Your task to perform on an android device: Open Youtube and go to the subscriptions tab Image 0: 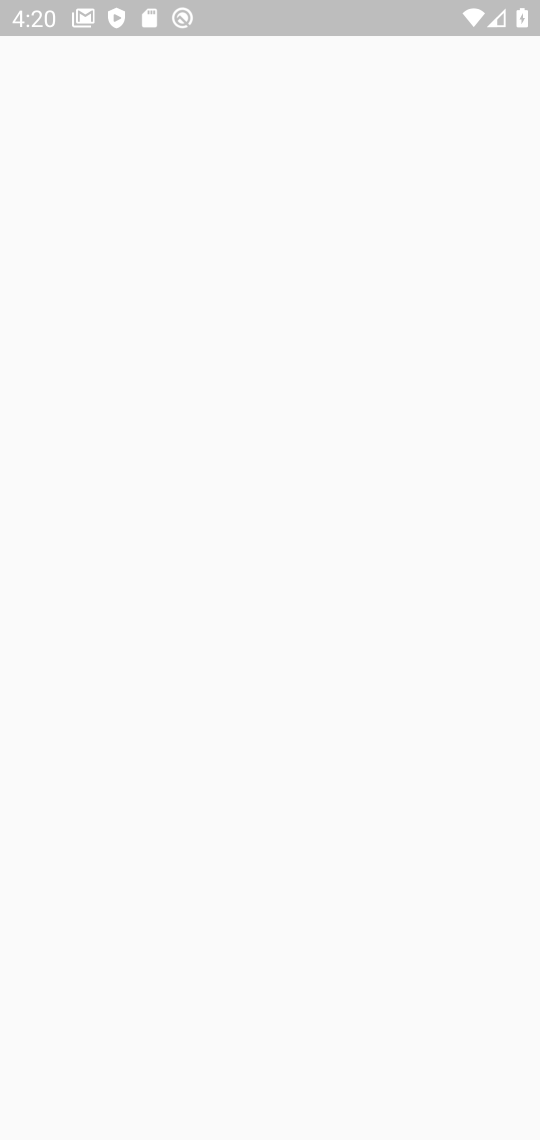
Step 0: press home button
Your task to perform on an android device: Open Youtube and go to the subscriptions tab Image 1: 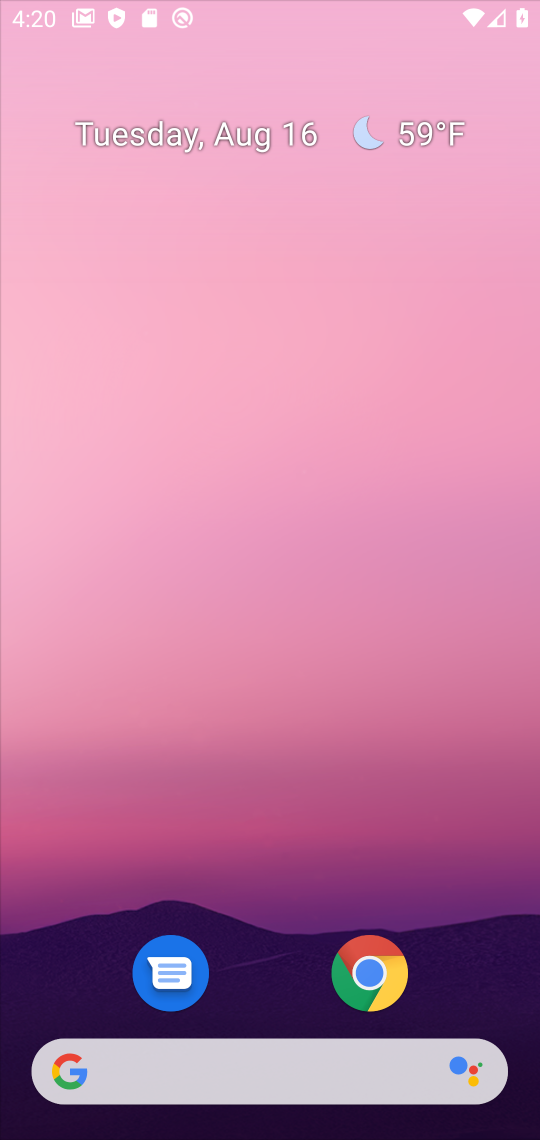
Step 1: drag from (189, 866) to (198, 390)
Your task to perform on an android device: Open Youtube and go to the subscriptions tab Image 2: 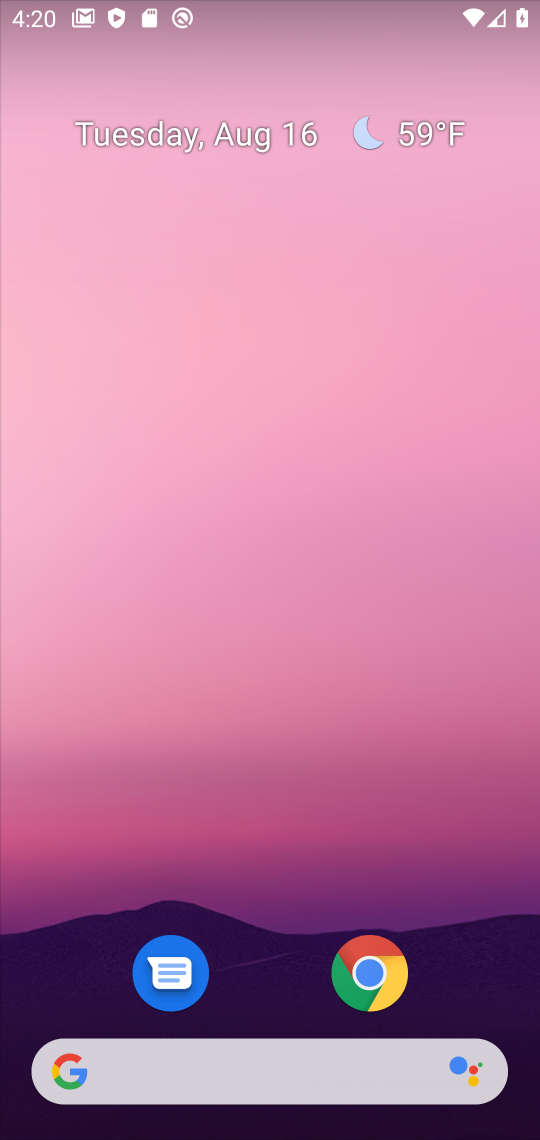
Step 2: drag from (232, 860) to (236, 407)
Your task to perform on an android device: Open Youtube and go to the subscriptions tab Image 3: 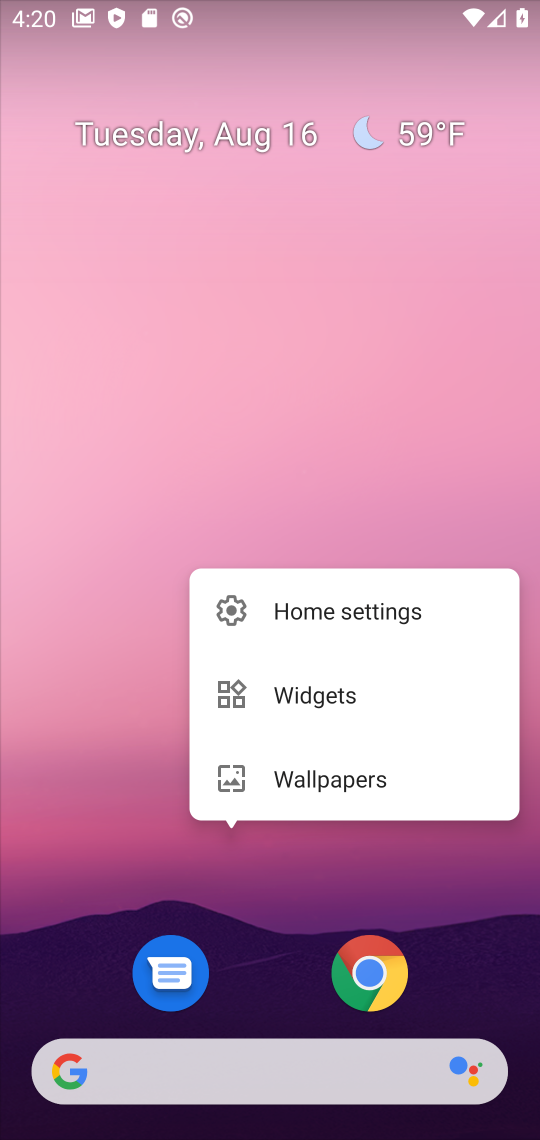
Step 3: drag from (217, 705) to (162, 270)
Your task to perform on an android device: Open Youtube and go to the subscriptions tab Image 4: 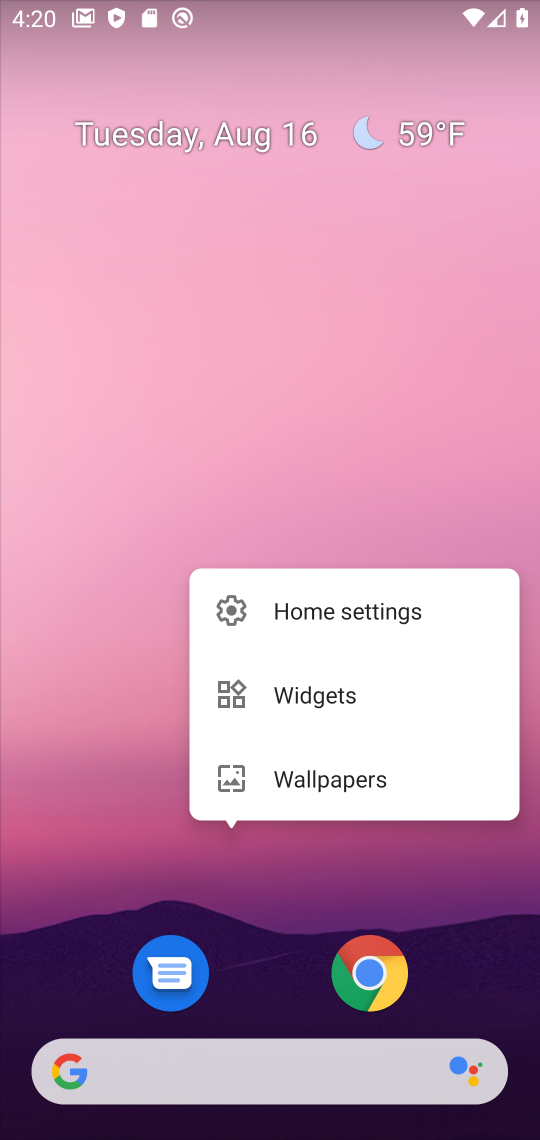
Step 4: click (104, 742)
Your task to perform on an android device: Open Youtube and go to the subscriptions tab Image 5: 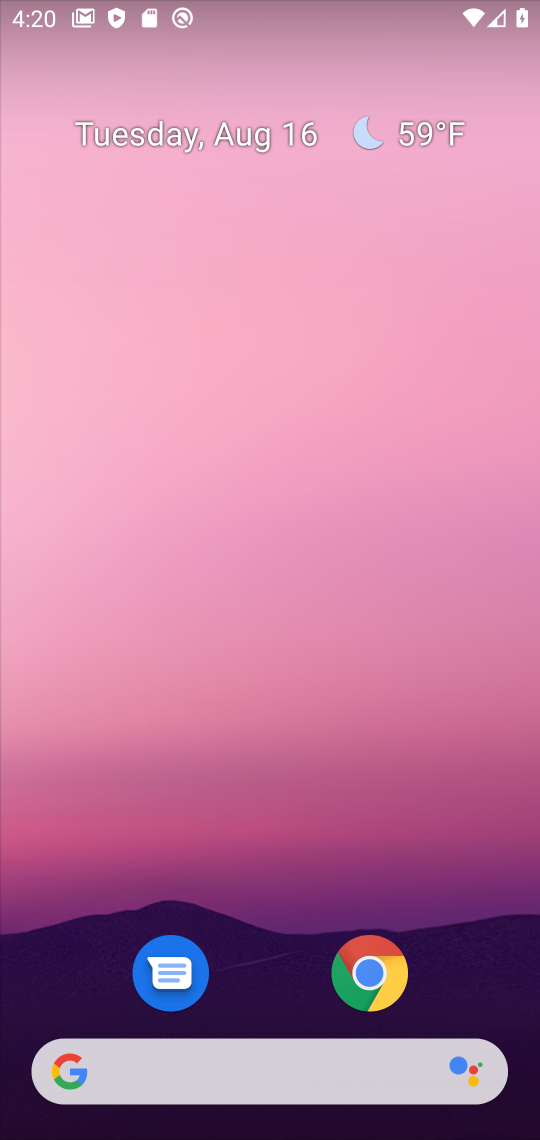
Step 5: press home button
Your task to perform on an android device: Open Youtube and go to the subscriptions tab Image 6: 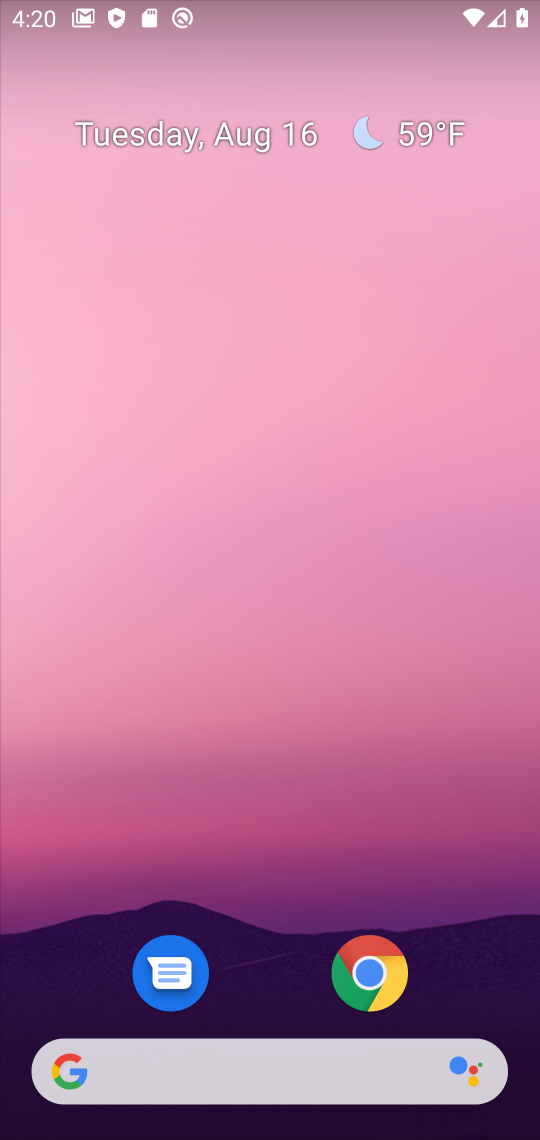
Step 6: drag from (268, 936) to (268, 307)
Your task to perform on an android device: Open Youtube and go to the subscriptions tab Image 7: 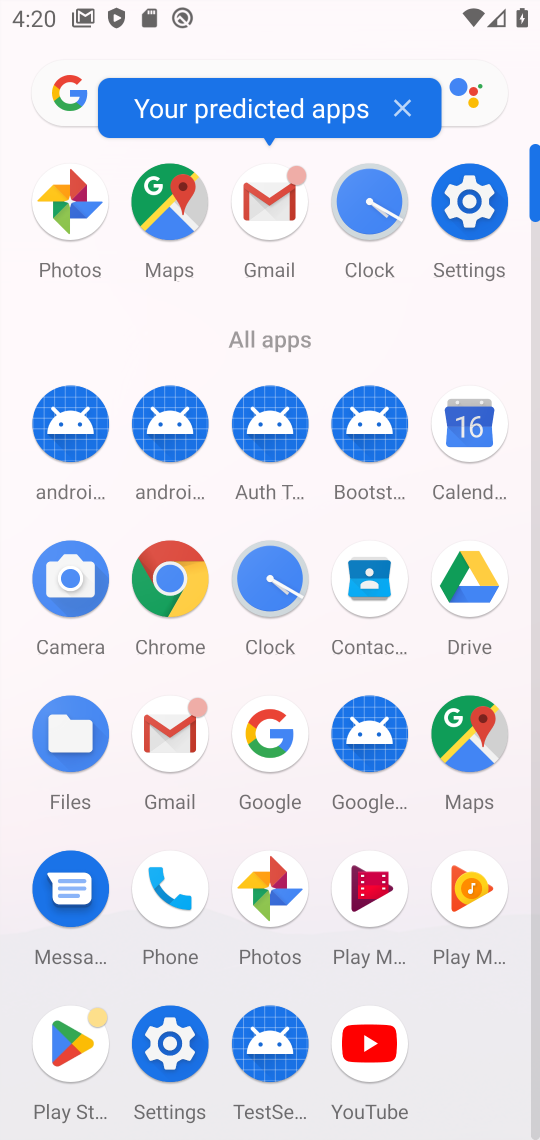
Step 7: click (393, 1046)
Your task to perform on an android device: Open Youtube and go to the subscriptions tab Image 8: 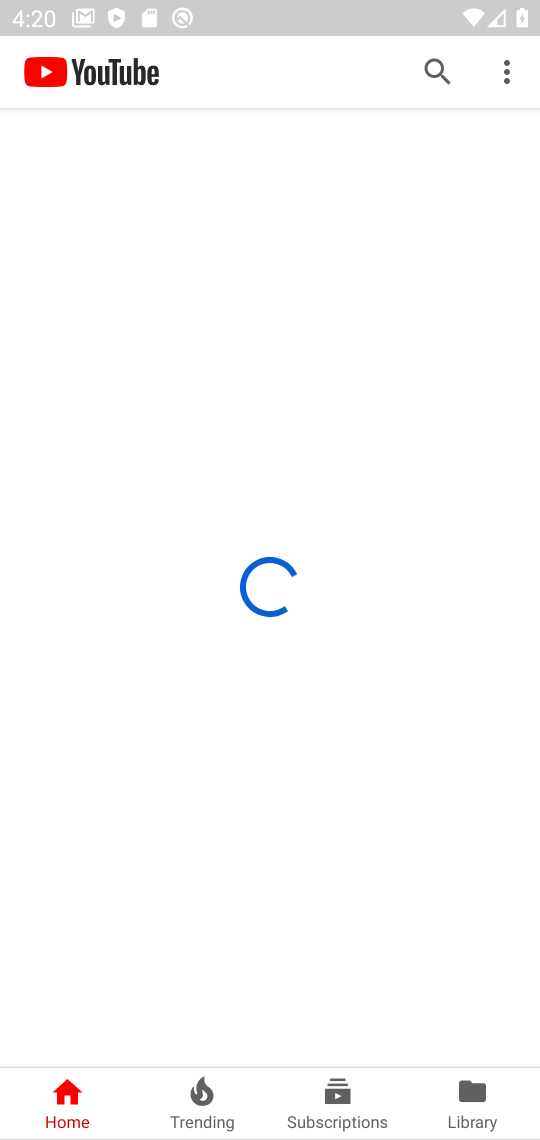
Step 8: click (349, 1105)
Your task to perform on an android device: Open Youtube and go to the subscriptions tab Image 9: 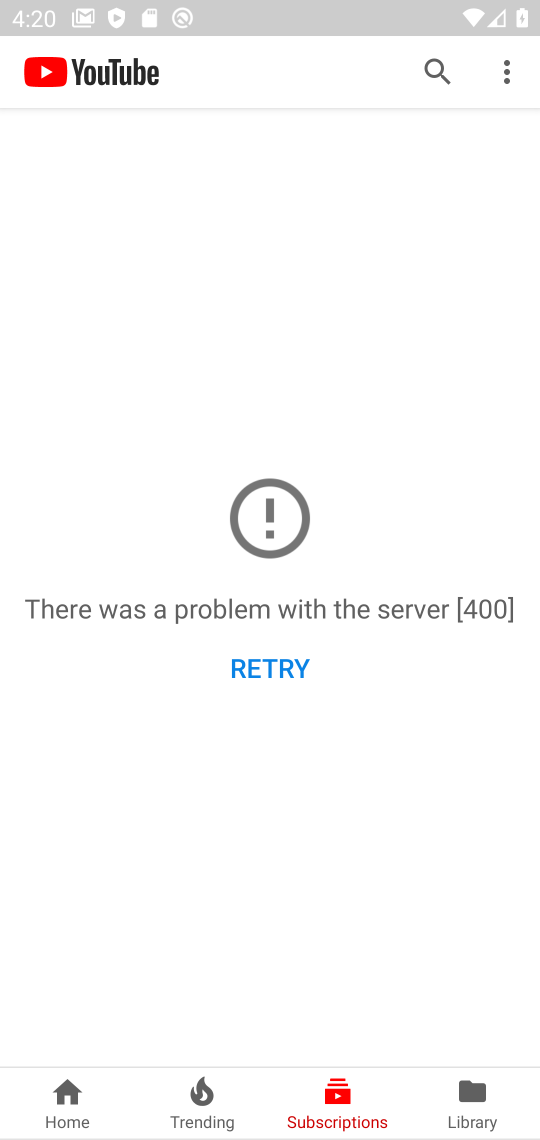
Step 9: task complete